Your task to perform on an android device: see tabs open on other devices in the chrome app Image 0: 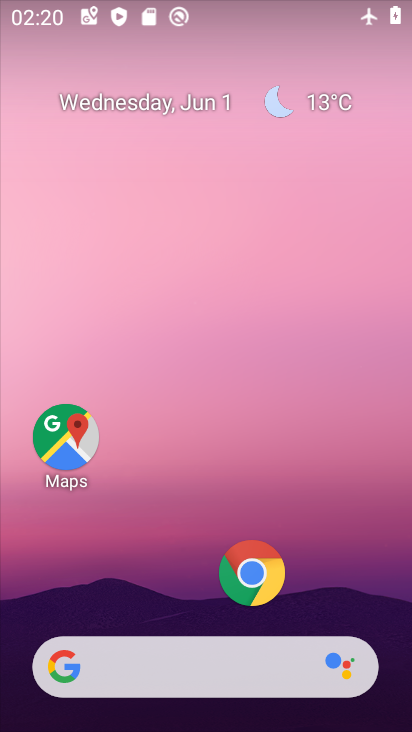
Step 0: drag from (191, 642) to (125, 71)
Your task to perform on an android device: see tabs open on other devices in the chrome app Image 1: 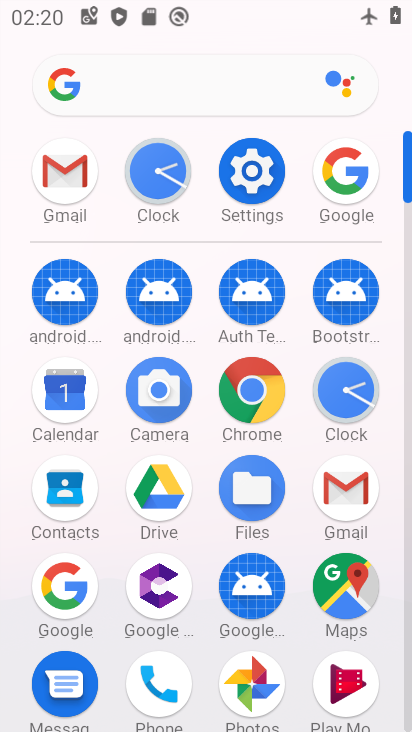
Step 1: click (258, 416)
Your task to perform on an android device: see tabs open on other devices in the chrome app Image 2: 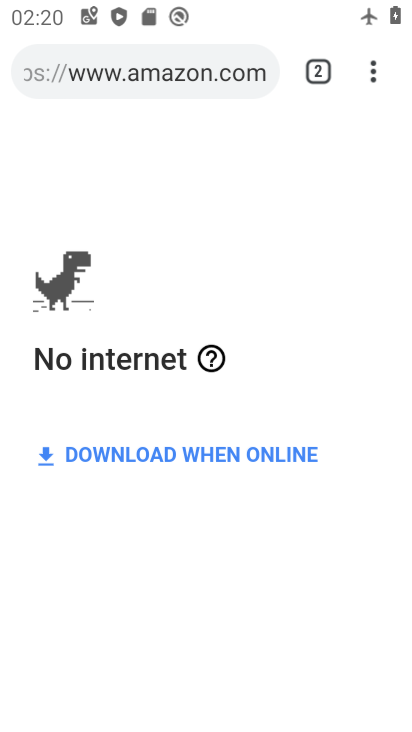
Step 2: click (307, 66)
Your task to perform on an android device: see tabs open on other devices in the chrome app Image 3: 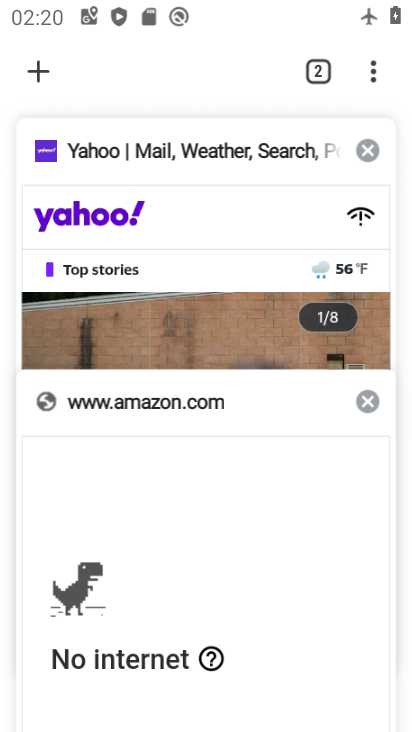
Step 3: task complete